Your task to perform on an android device: turn on wifi Image 0: 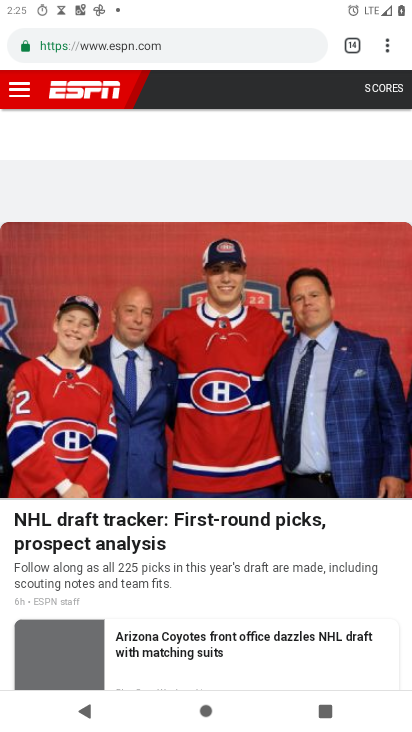
Step 0: press home button
Your task to perform on an android device: turn on wifi Image 1: 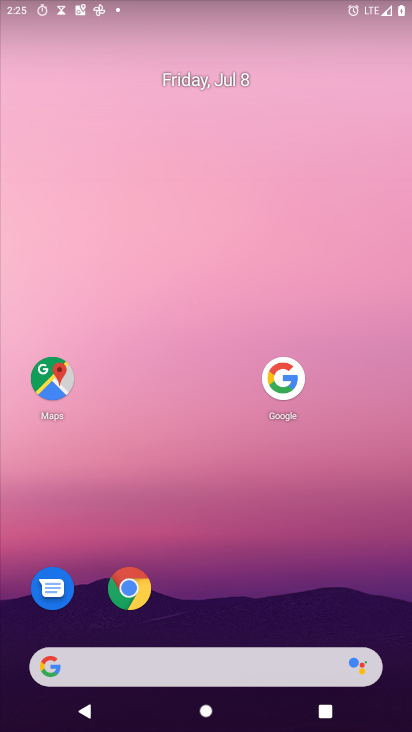
Step 1: drag from (235, 658) to (237, 46)
Your task to perform on an android device: turn on wifi Image 2: 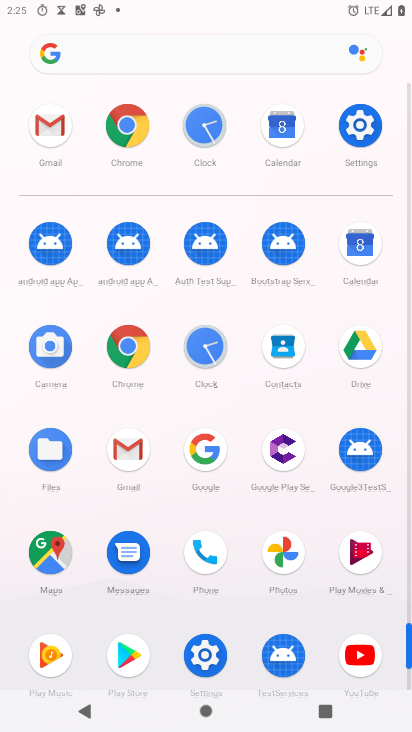
Step 2: click (361, 126)
Your task to perform on an android device: turn on wifi Image 3: 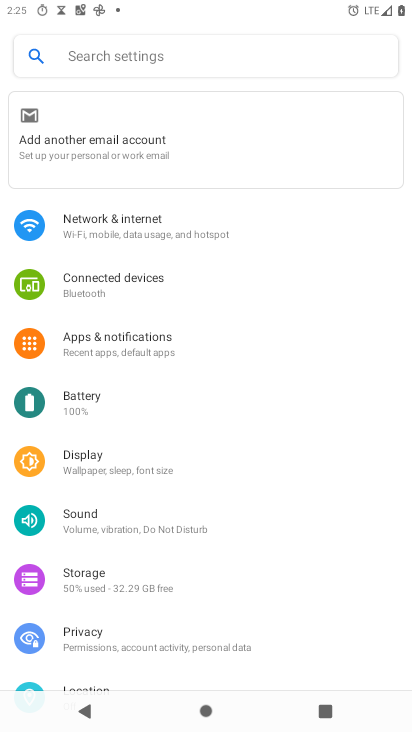
Step 3: click (153, 165)
Your task to perform on an android device: turn on wifi Image 4: 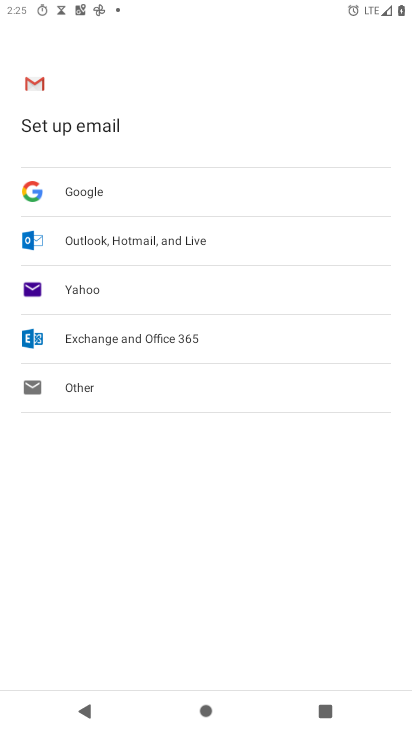
Step 4: press back button
Your task to perform on an android device: turn on wifi Image 5: 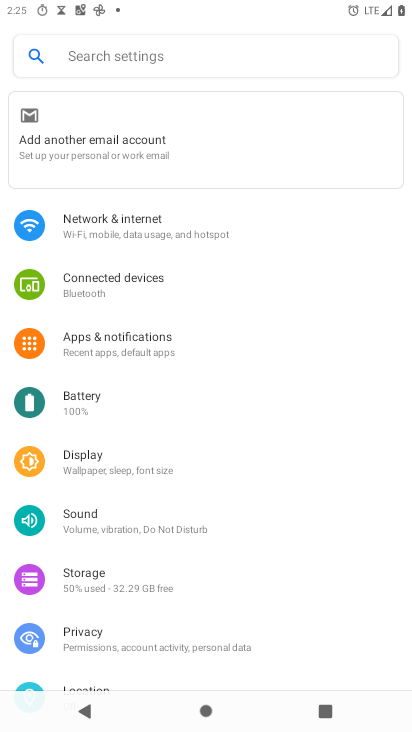
Step 5: click (126, 218)
Your task to perform on an android device: turn on wifi Image 6: 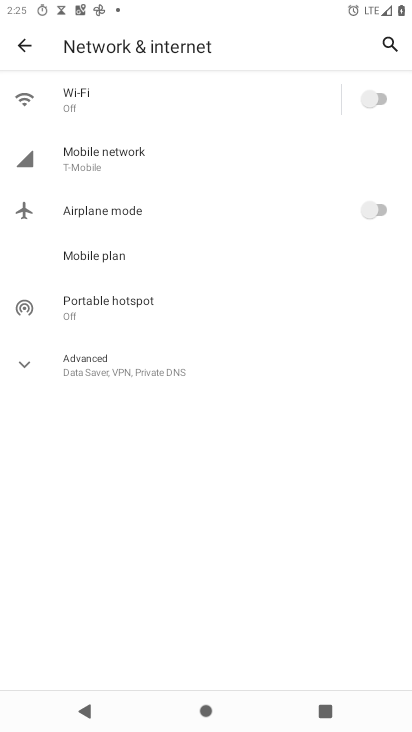
Step 6: click (380, 94)
Your task to perform on an android device: turn on wifi Image 7: 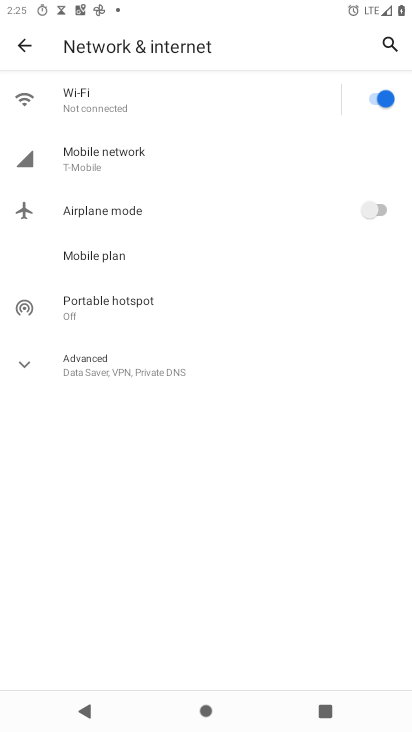
Step 7: task complete